Your task to perform on an android device: Open notification settings Image 0: 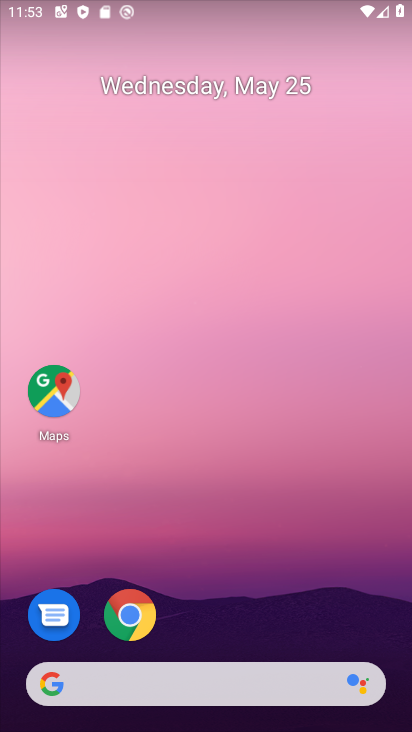
Step 0: drag from (205, 642) to (186, 198)
Your task to perform on an android device: Open notification settings Image 1: 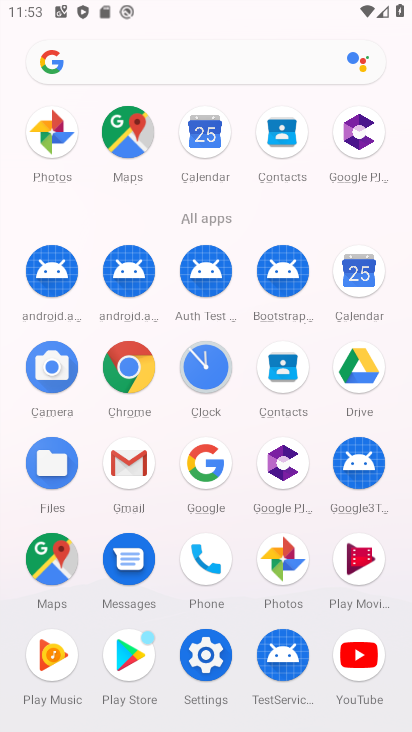
Step 1: click (218, 657)
Your task to perform on an android device: Open notification settings Image 2: 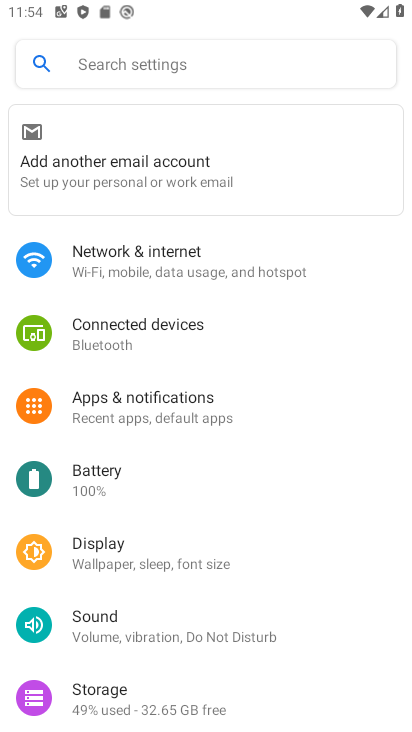
Step 2: click (146, 403)
Your task to perform on an android device: Open notification settings Image 3: 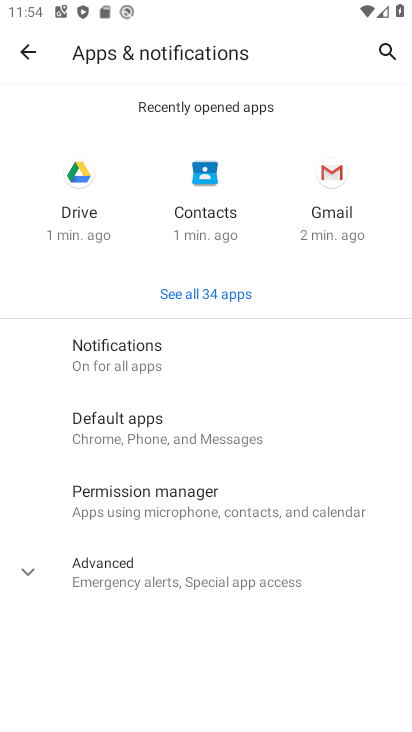
Step 3: click (153, 373)
Your task to perform on an android device: Open notification settings Image 4: 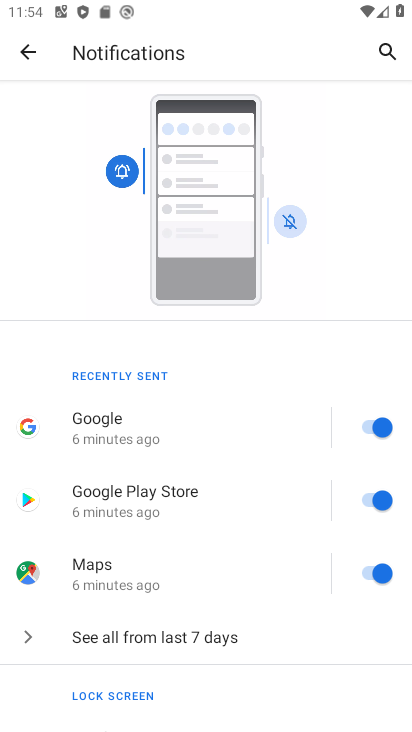
Step 4: task complete